Your task to perform on an android device: Open the map Image 0: 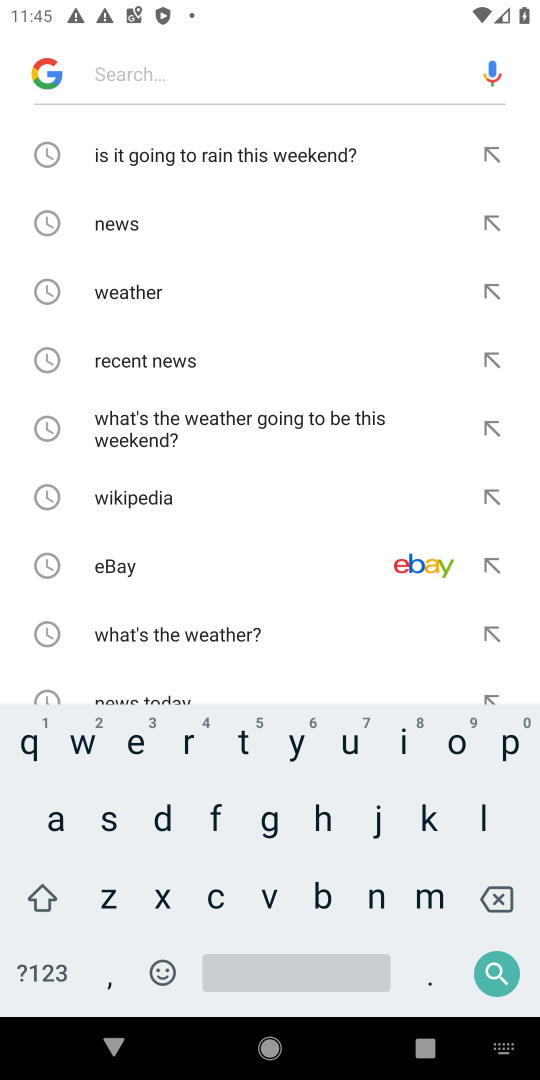
Step 0: press home button
Your task to perform on an android device: Open the map Image 1: 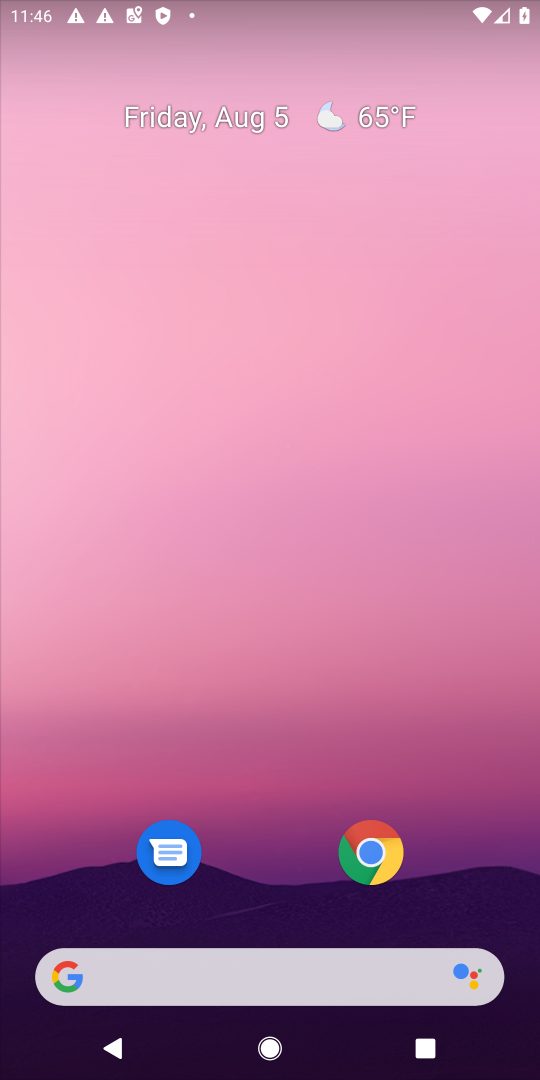
Step 1: drag from (283, 1014) to (344, 161)
Your task to perform on an android device: Open the map Image 2: 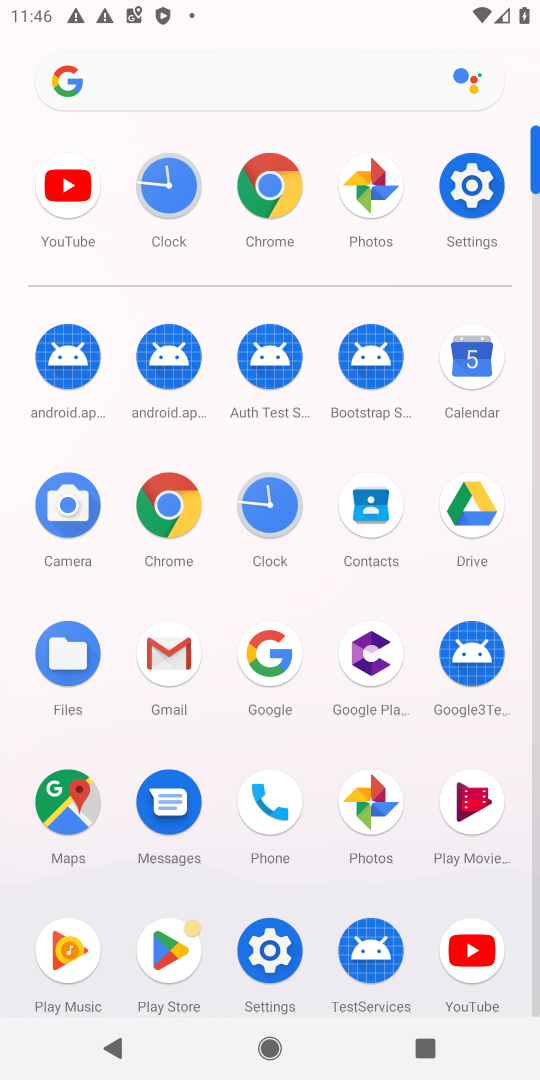
Step 2: click (75, 788)
Your task to perform on an android device: Open the map Image 3: 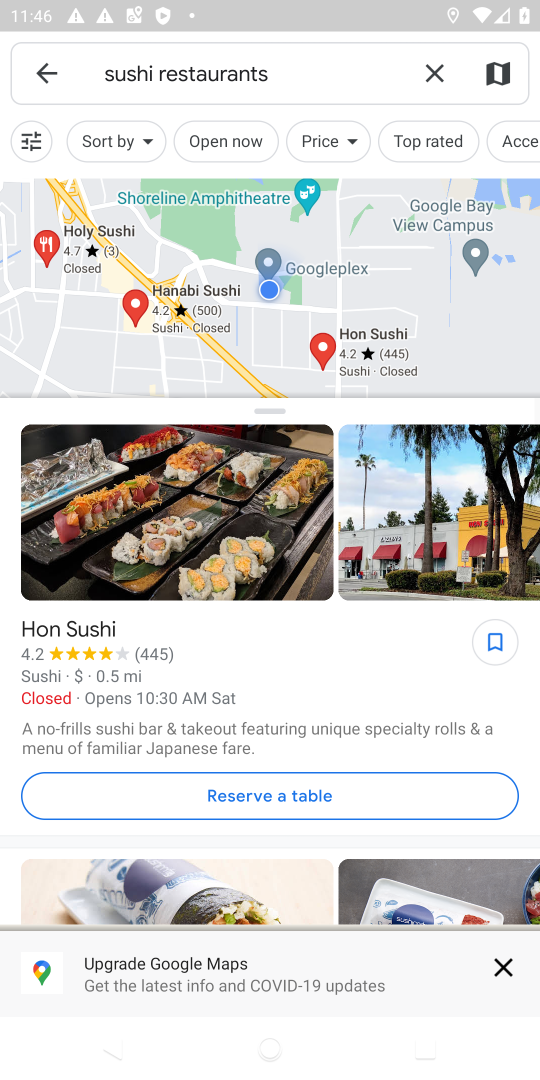
Step 3: click (37, 71)
Your task to perform on an android device: Open the map Image 4: 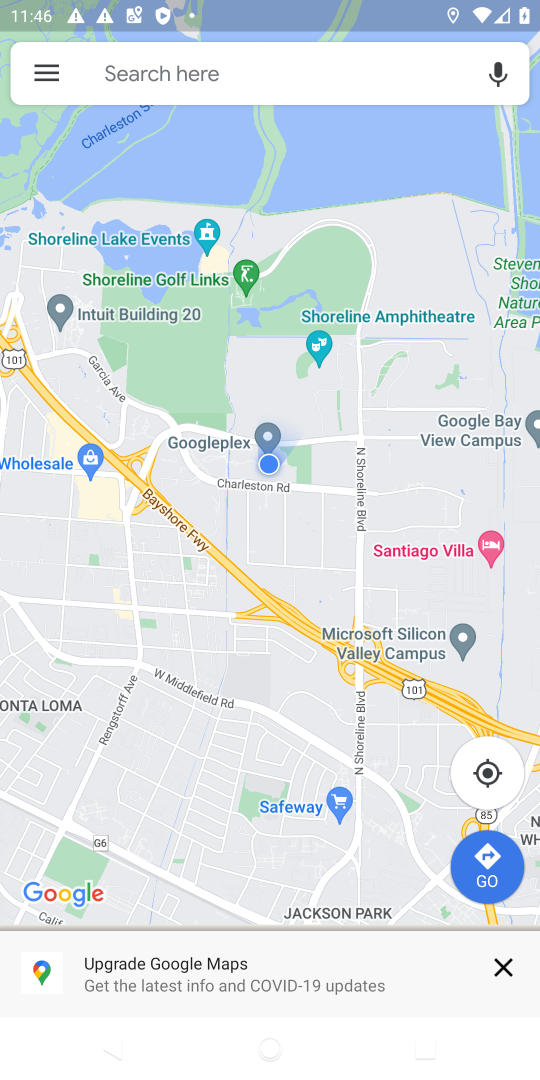
Step 4: click (482, 764)
Your task to perform on an android device: Open the map Image 5: 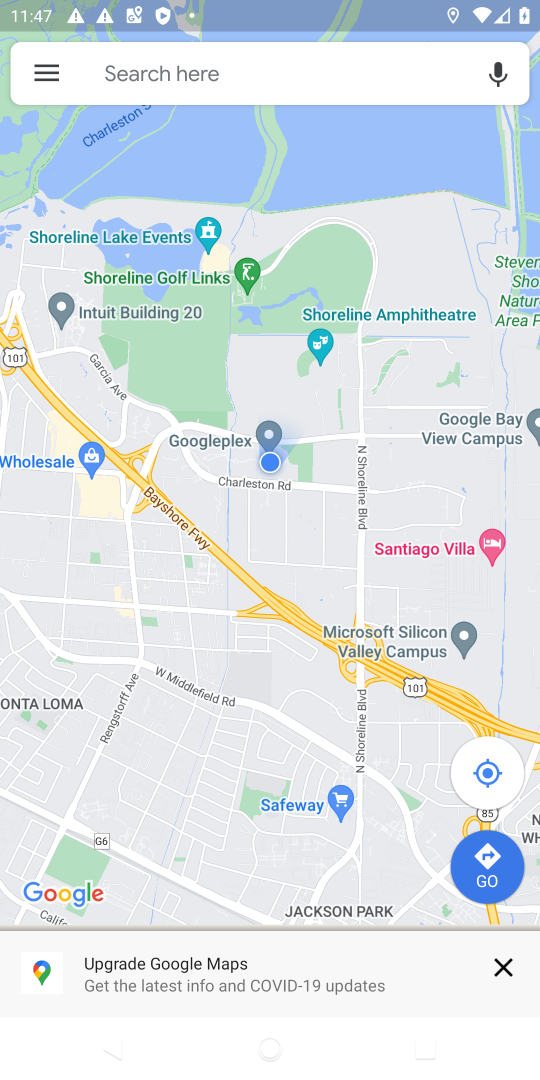
Step 5: task complete